Your task to perform on an android device: Open the phone app and click the voicemail tab. Image 0: 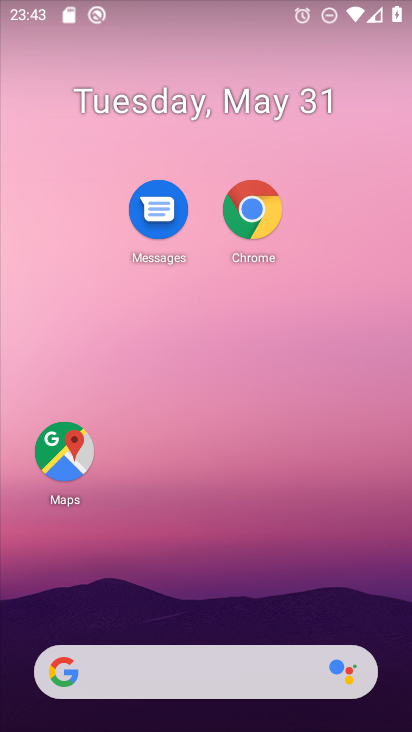
Step 0: drag from (213, 604) to (243, 78)
Your task to perform on an android device: Open the phone app and click the voicemail tab. Image 1: 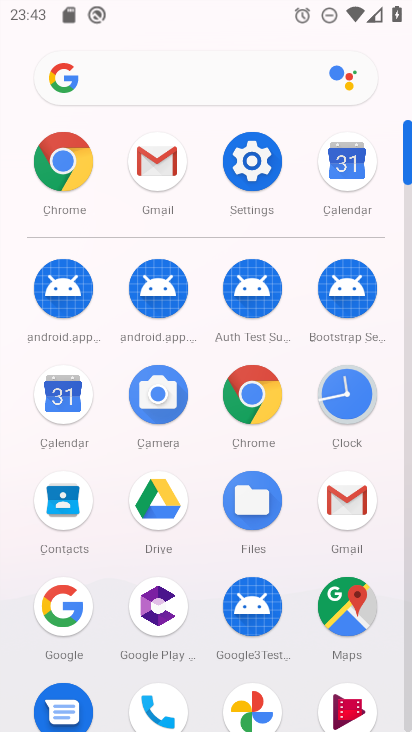
Step 1: click (157, 699)
Your task to perform on an android device: Open the phone app and click the voicemail tab. Image 2: 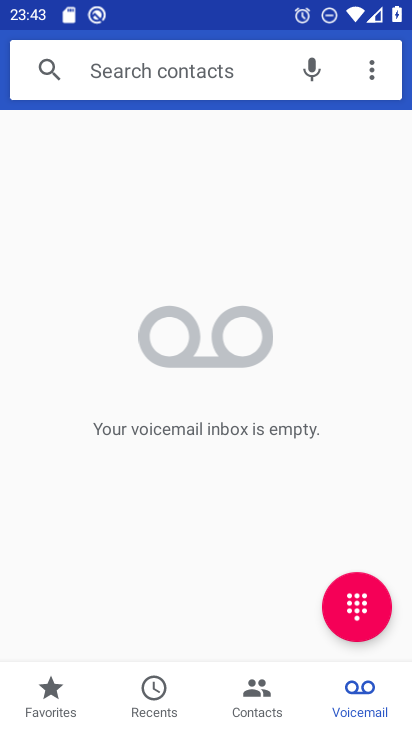
Step 2: task complete